Your task to perform on an android device: Open the phone app and click the voicemail tab. Image 0: 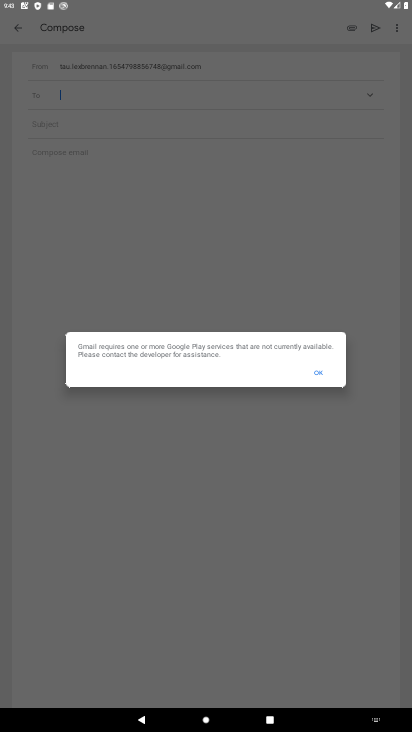
Step 0: press home button
Your task to perform on an android device: Open the phone app and click the voicemail tab. Image 1: 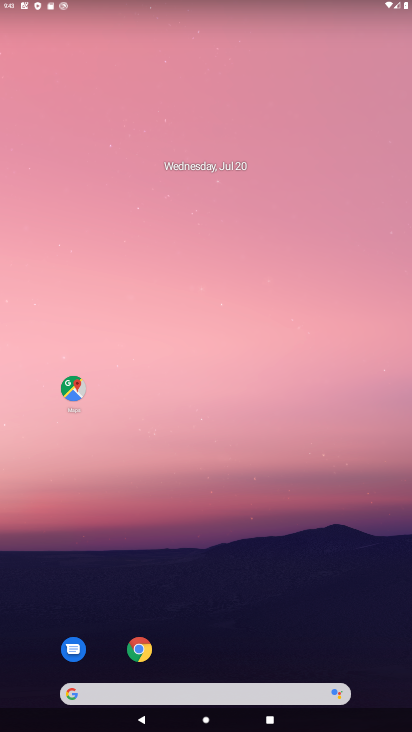
Step 1: drag from (210, 640) to (178, 279)
Your task to perform on an android device: Open the phone app and click the voicemail tab. Image 2: 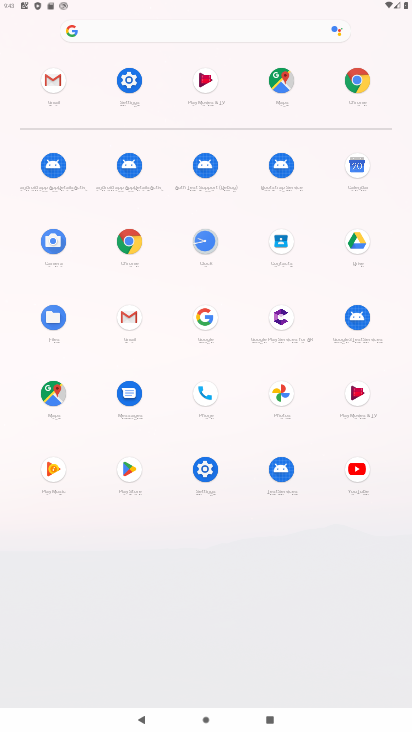
Step 2: click (210, 393)
Your task to perform on an android device: Open the phone app and click the voicemail tab. Image 3: 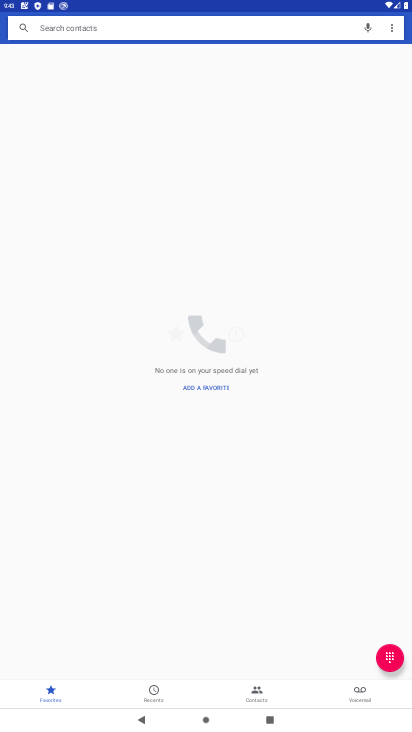
Step 3: click (346, 672)
Your task to perform on an android device: Open the phone app and click the voicemail tab. Image 4: 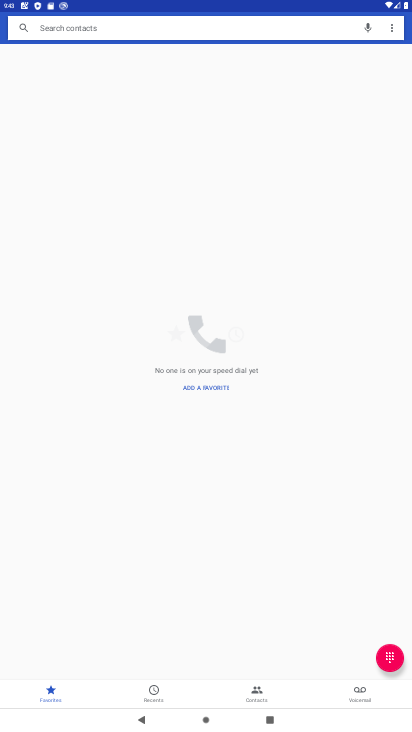
Step 4: task complete